Your task to perform on an android device: Do I have any events tomorrow? Image 0: 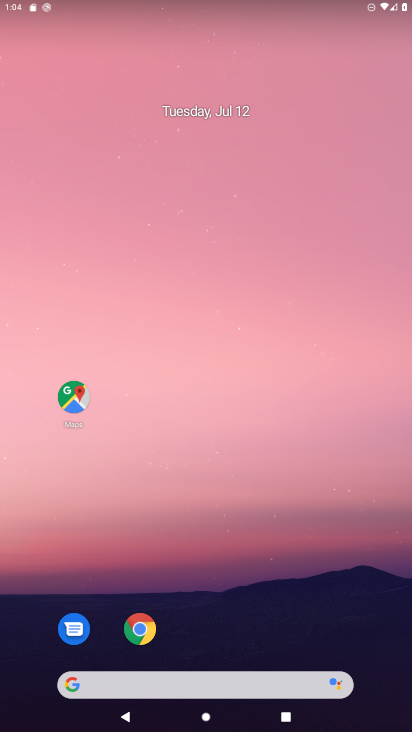
Step 0: drag from (224, 657) to (286, 78)
Your task to perform on an android device: Do I have any events tomorrow? Image 1: 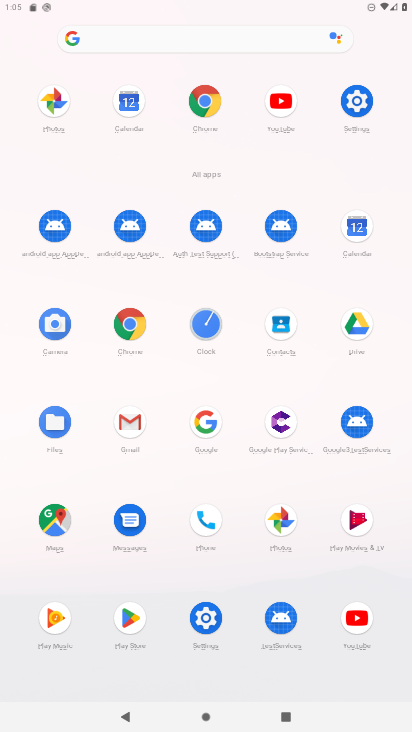
Step 1: click (354, 220)
Your task to perform on an android device: Do I have any events tomorrow? Image 2: 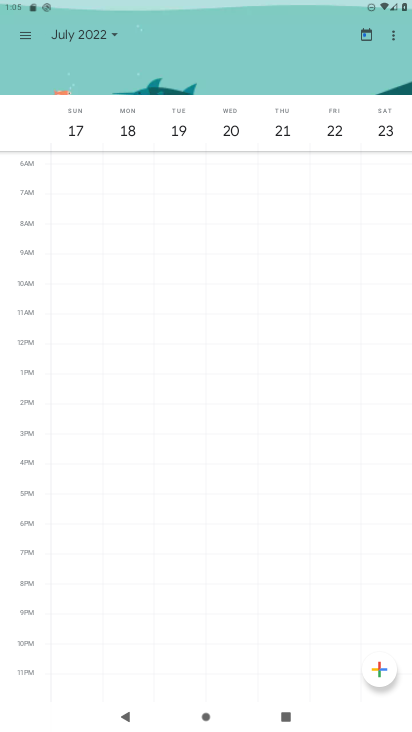
Step 2: task complete